Your task to perform on an android device: Go to internet settings Image 0: 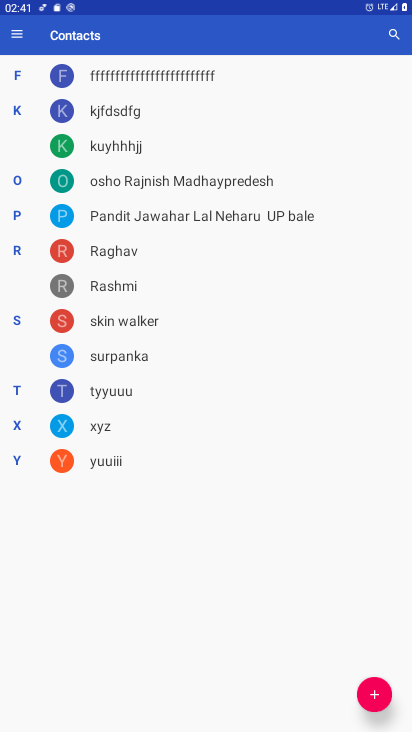
Step 0: click (206, 673)
Your task to perform on an android device: Go to internet settings Image 1: 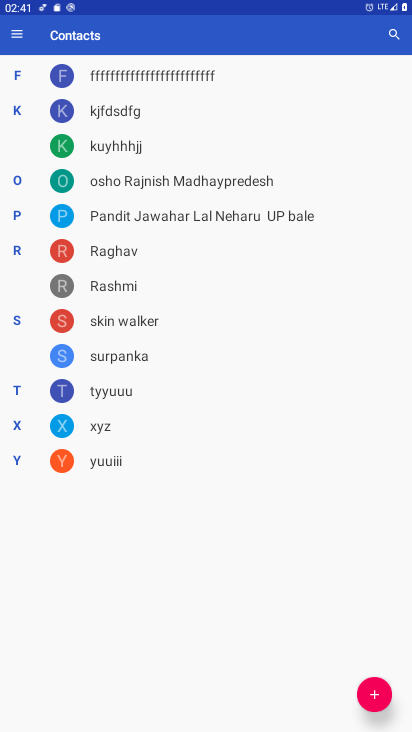
Step 1: press home button
Your task to perform on an android device: Go to internet settings Image 2: 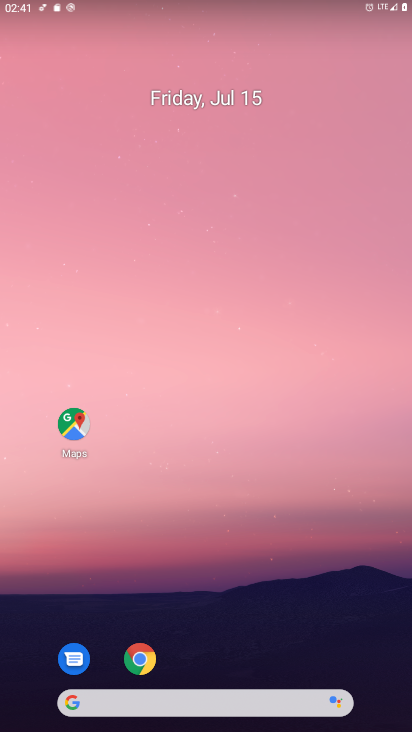
Step 2: drag from (216, 611) to (296, 167)
Your task to perform on an android device: Go to internet settings Image 3: 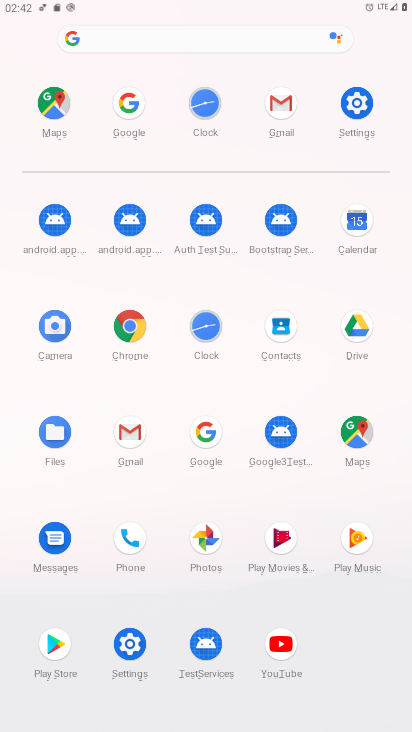
Step 3: click (352, 121)
Your task to perform on an android device: Go to internet settings Image 4: 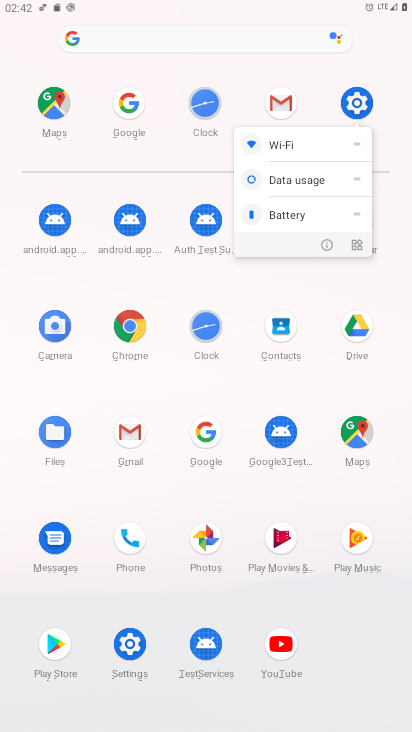
Step 4: click (356, 101)
Your task to perform on an android device: Go to internet settings Image 5: 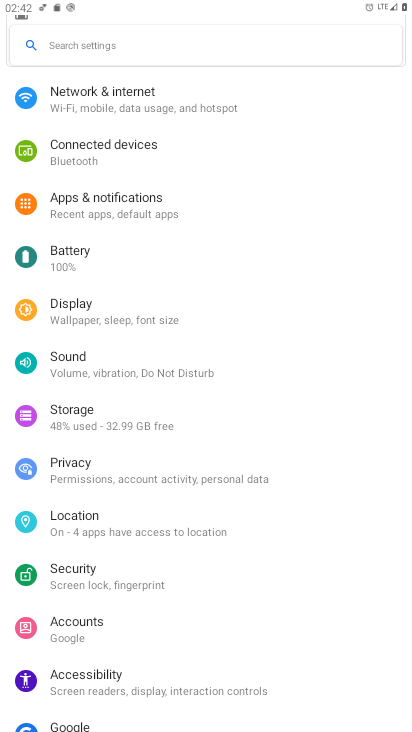
Step 5: click (165, 90)
Your task to perform on an android device: Go to internet settings Image 6: 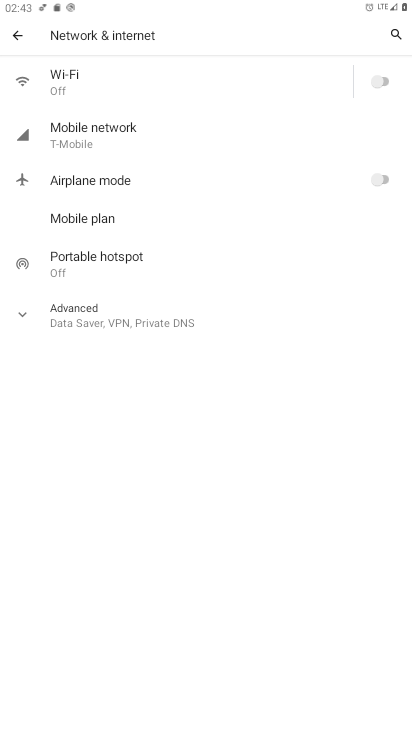
Step 6: task complete